Your task to perform on an android device: change the clock display to digital Image 0: 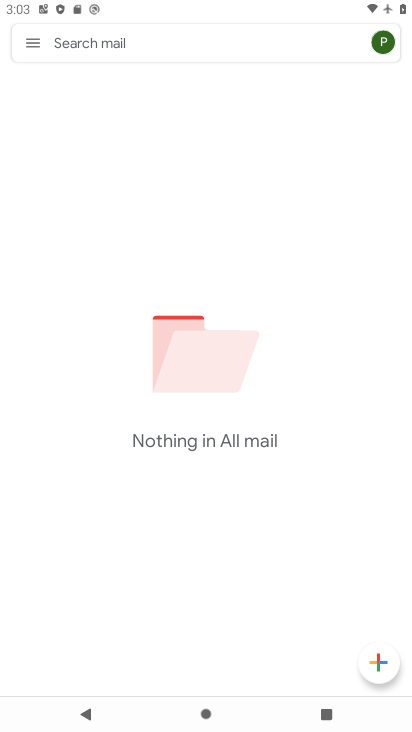
Step 0: press home button
Your task to perform on an android device: change the clock display to digital Image 1: 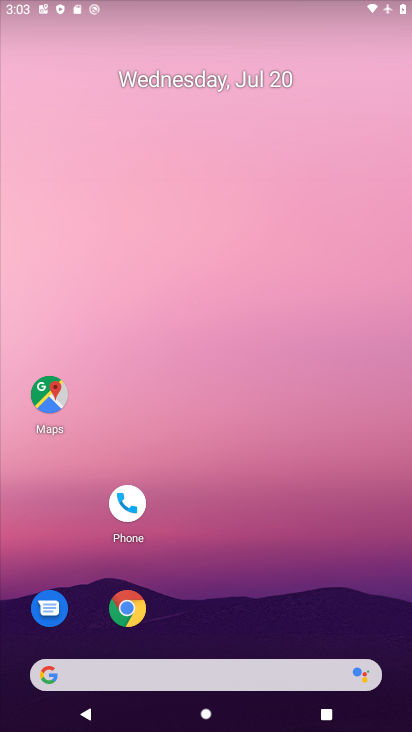
Step 1: drag from (304, 623) to (269, 65)
Your task to perform on an android device: change the clock display to digital Image 2: 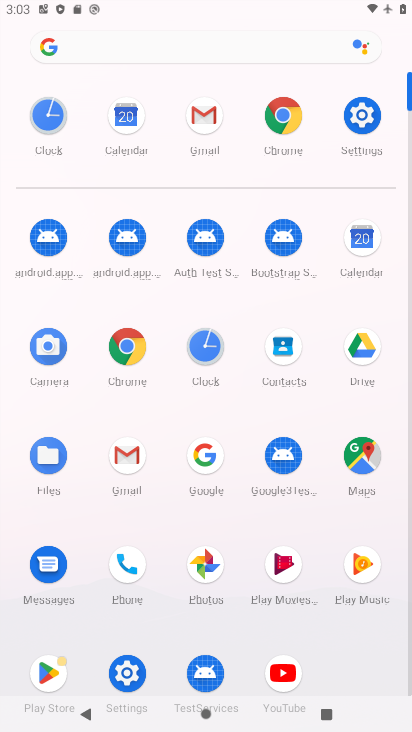
Step 2: click (212, 348)
Your task to perform on an android device: change the clock display to digital Image 3: 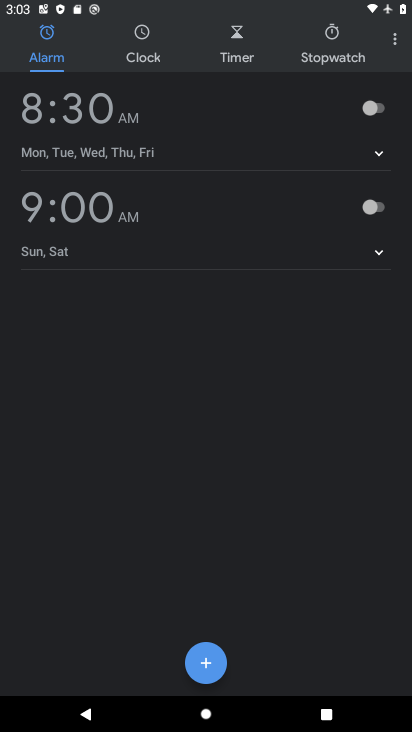
Step 3: click (396, 32)
Your task to perform on an android device: change the clock display to digital Image 4: 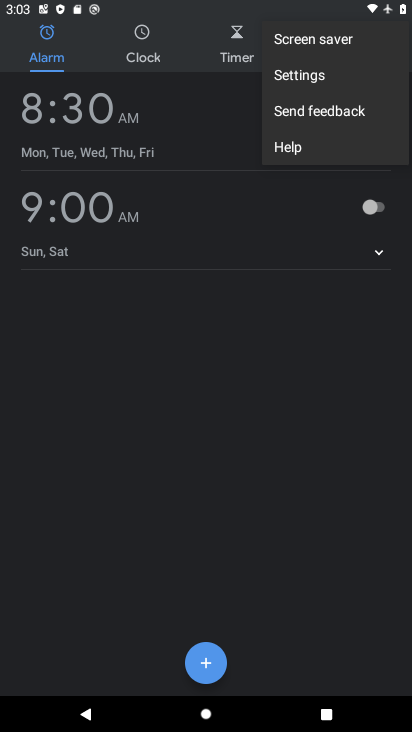
Step 4: click (305, 71)
Your task to perform on an android device: change the clock display to digital Image 5: 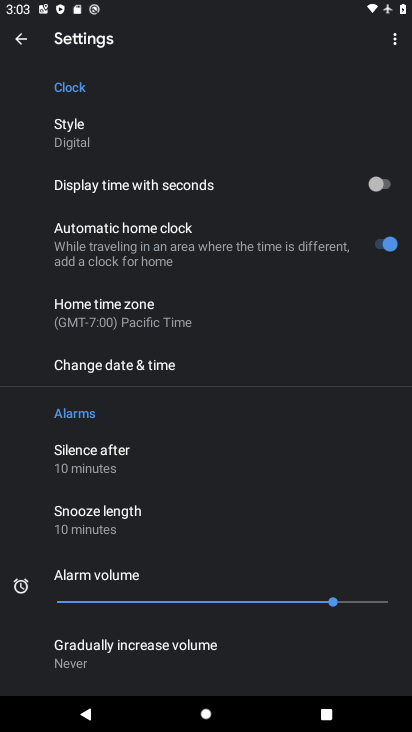
Step 5: task complete